Your task to perform on an android device: empty trash in google photos Image 0: 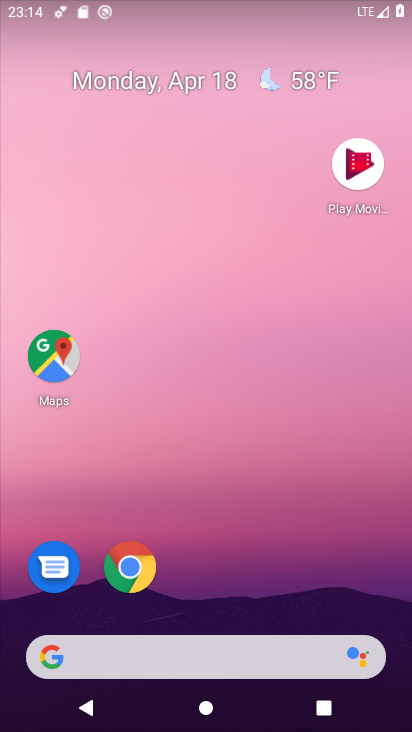
Step 0: drag from (195, 616) to (272, 115)
Your task to perform on an android device: empty trash in google photos Image 1: 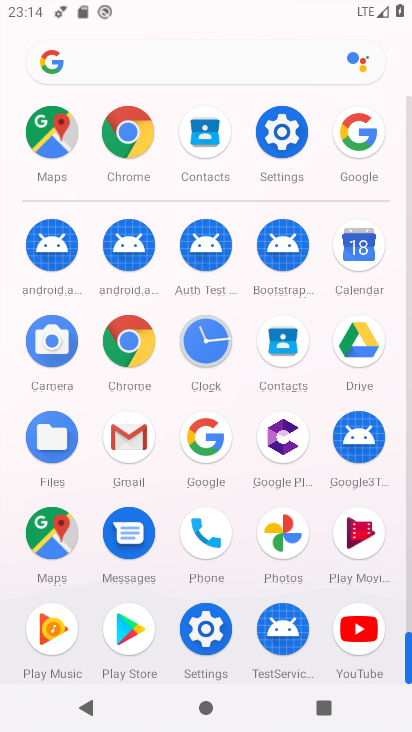
Step 1: click (280, 527)
Your task to perform on an android device: empty trash in google photos Image 2: 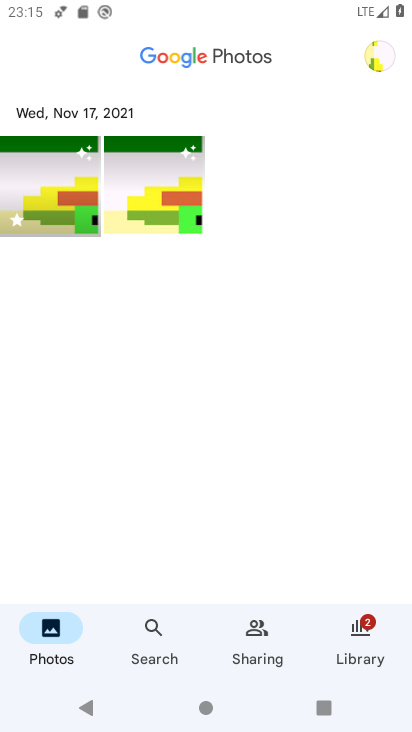
Step 2: click (366, 642)
Your task to perform on an android device: empty trash in google photos Image 3: 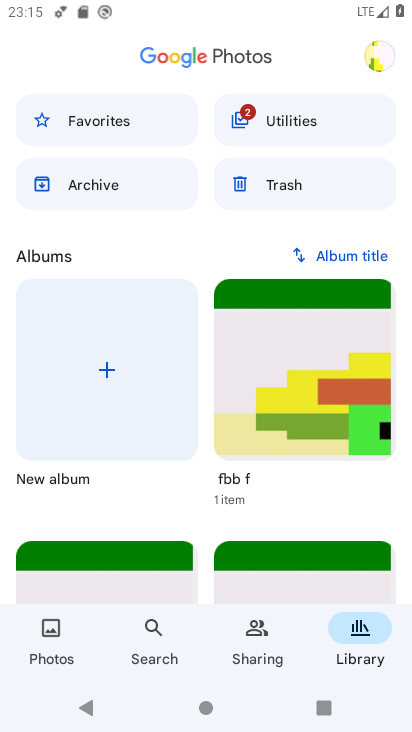
Step 3: click (279, 186)
Your task to perform on an android device: empty trash in google photos Image 4: 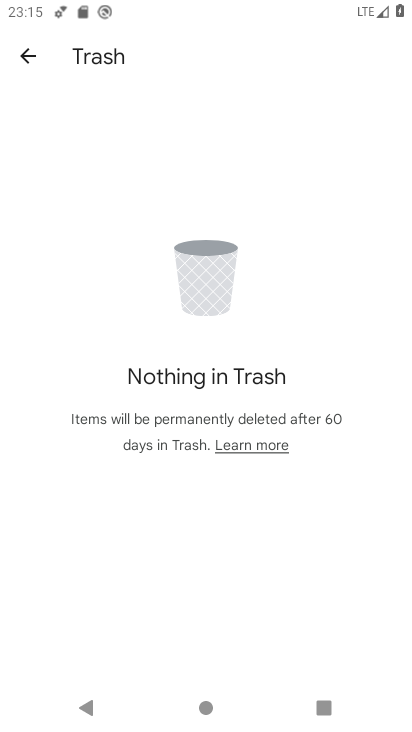
Step 4: task complete